Your task to perform on an android device: move an email to a new category in the gmail app Image 0: 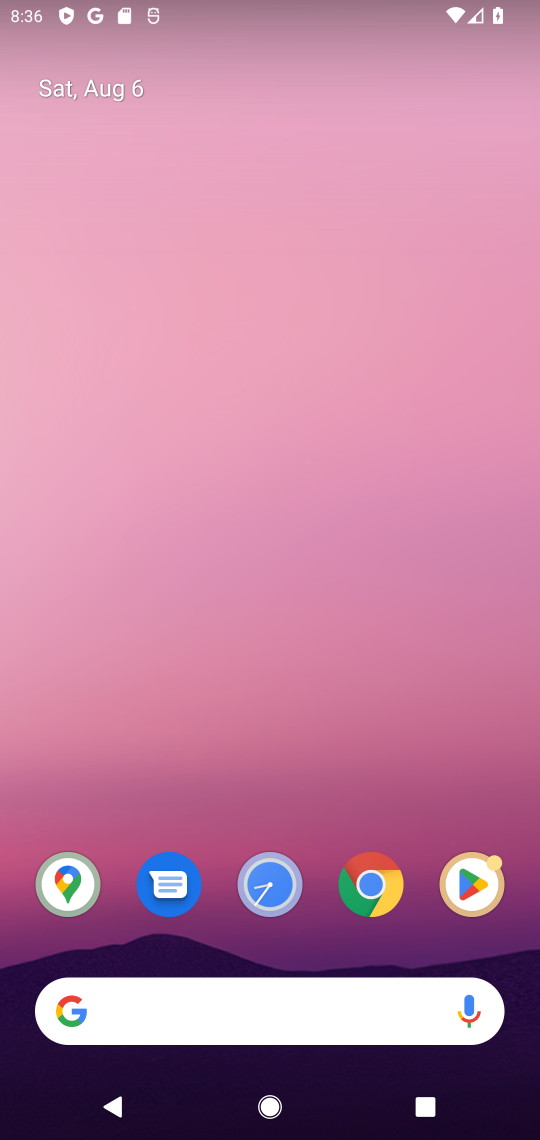
Step 0: drag from (414, 946) to (399, 184)
Your task to perform on an android device: move an email to a new category in the gmail app Image 1: 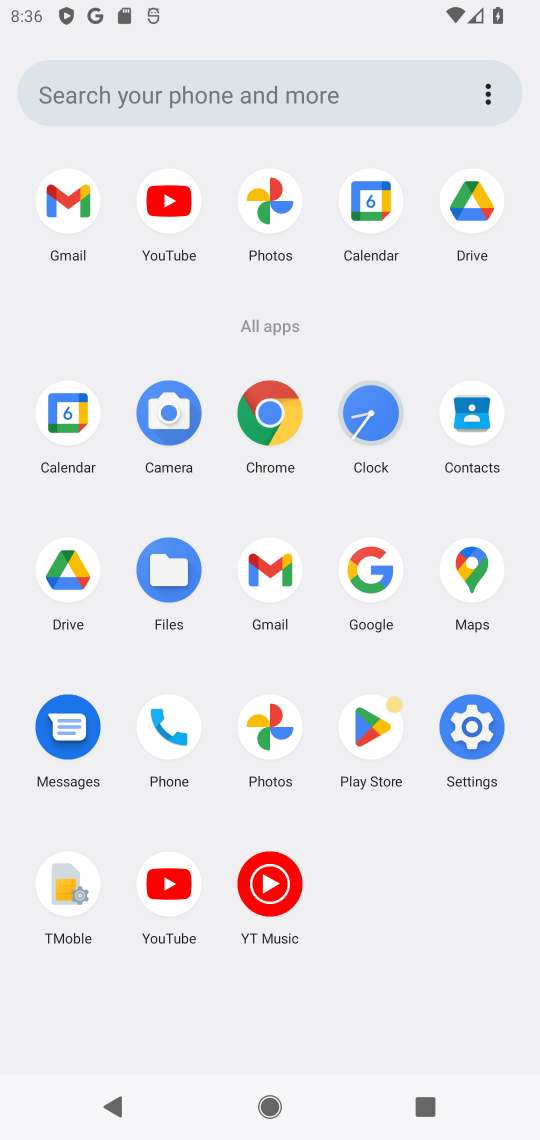
Step 1: click (268, 574)
Your task to perform on an android device: move an email to a new category in the gmail app Image 2: 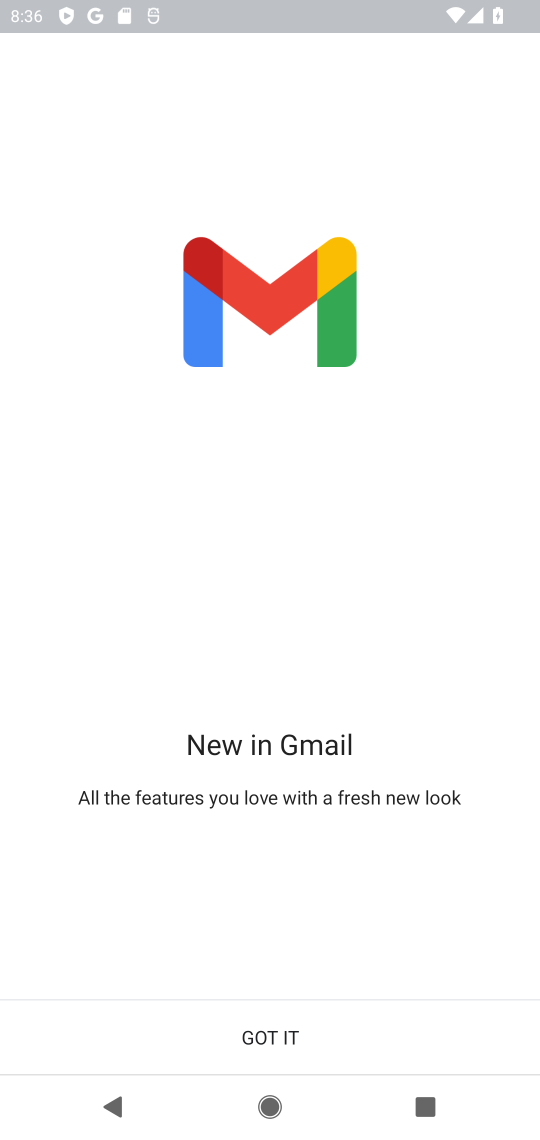
Step 2: click (275, 1044)
Your task to perform on an android device: move an email to a new category in the gmail app Image 3: 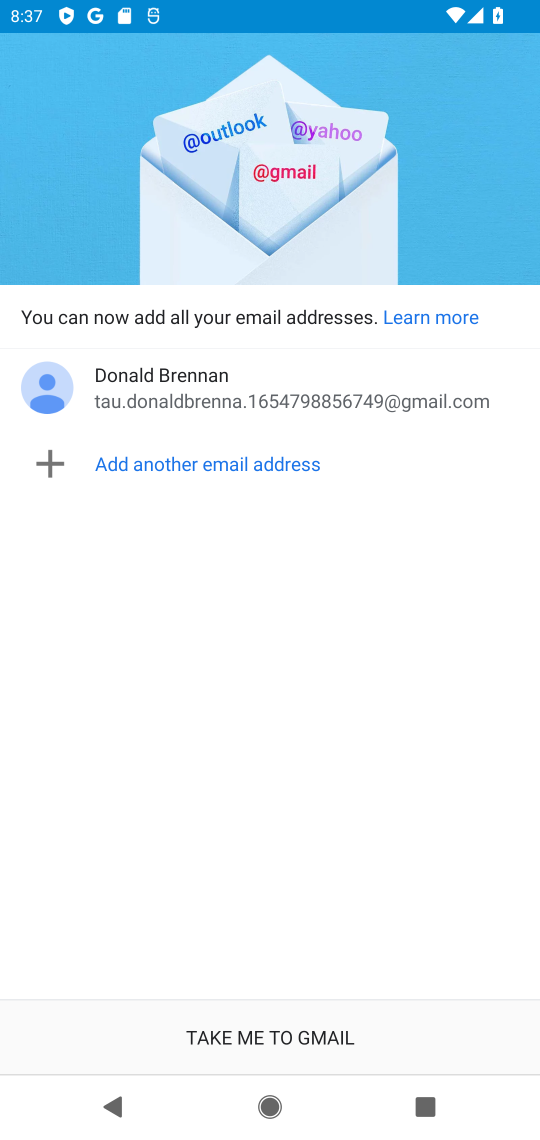
Step 3: click (270, 1035)
Your task to perform on an android device: move an email to a new category in the gmail app Image 4: 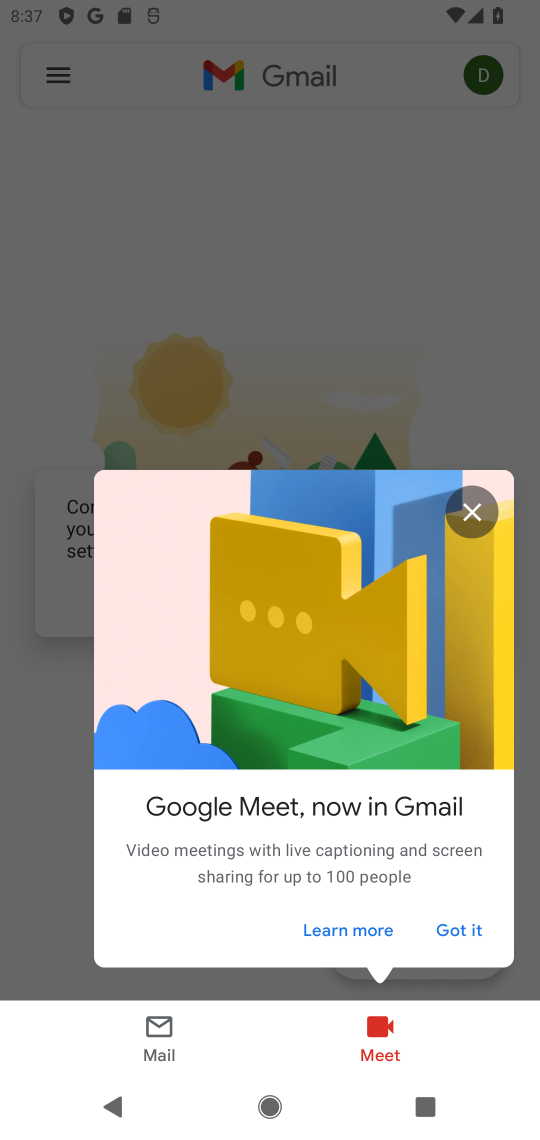
Step 4: click (458, 921)
Your task to perform on an android device: move an email to a new category in the gmail app Image 5: 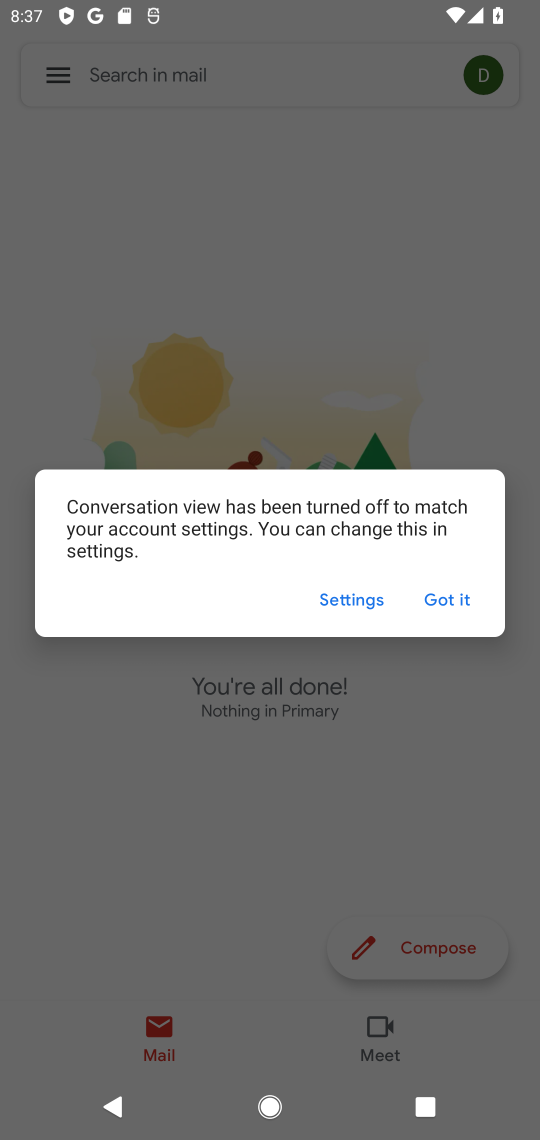
Step 5: click (454, 594)
Your task to perform on an android device: move an email to a new category in the gmail app Image 6: 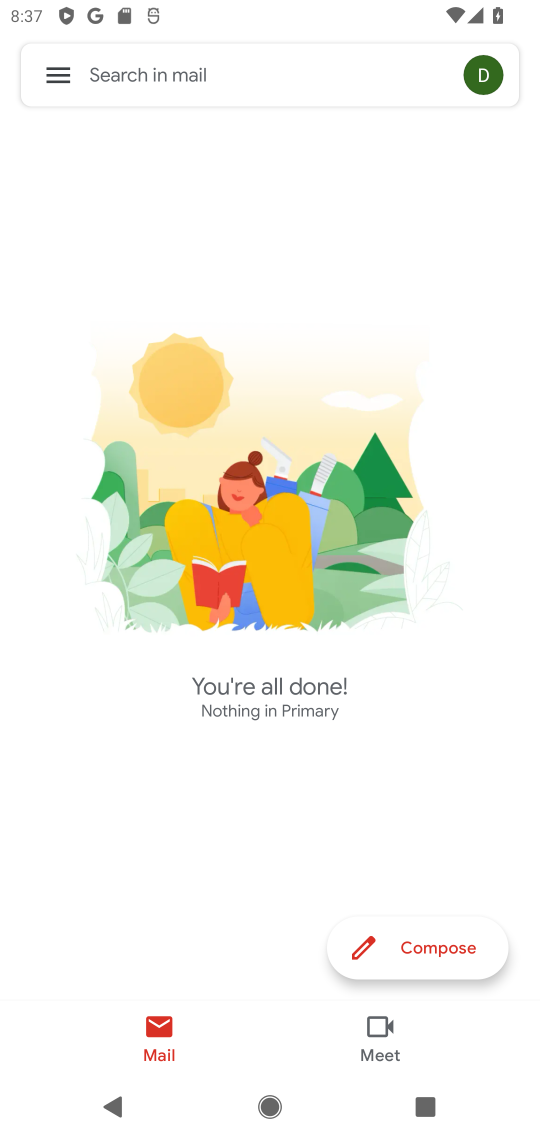
Step 6: click (56, 73)
Your task to perform on an android device: move an email to a new category in the gmail app Image 7: 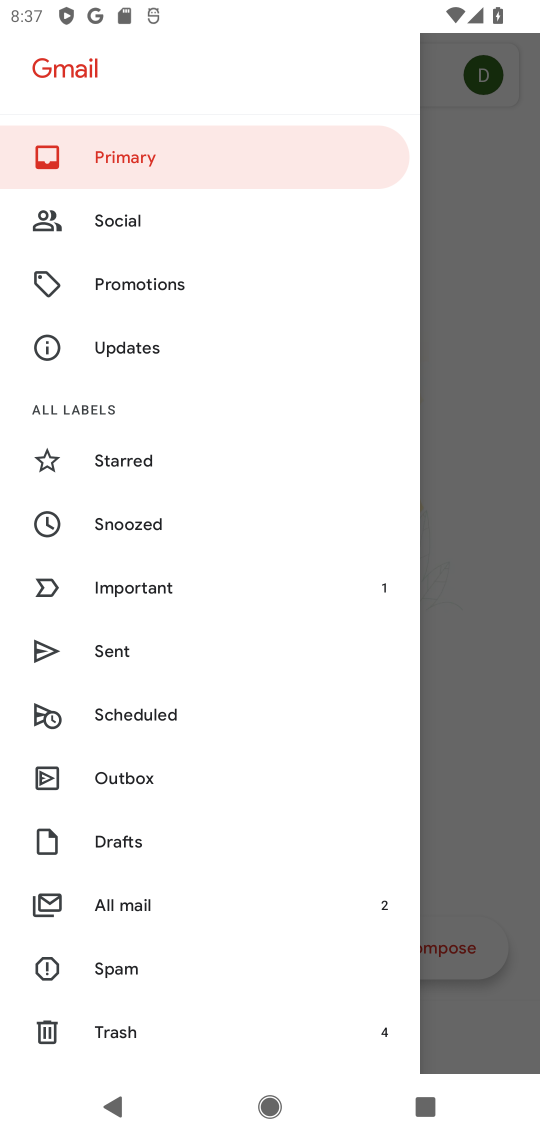
Step 7: click (129, 896)
Your task to perform on an android device: move an email to a new category in the gmail app Image 8: 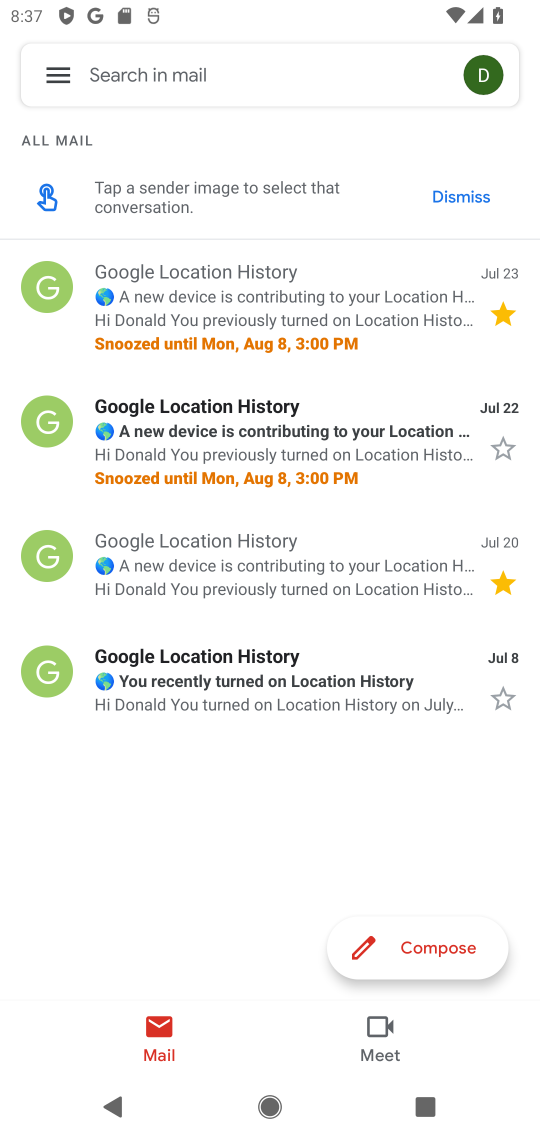
Step 8: click (303, 672)
Your task to perform on an android device: move an email to a new category in the gmail app Image 9: 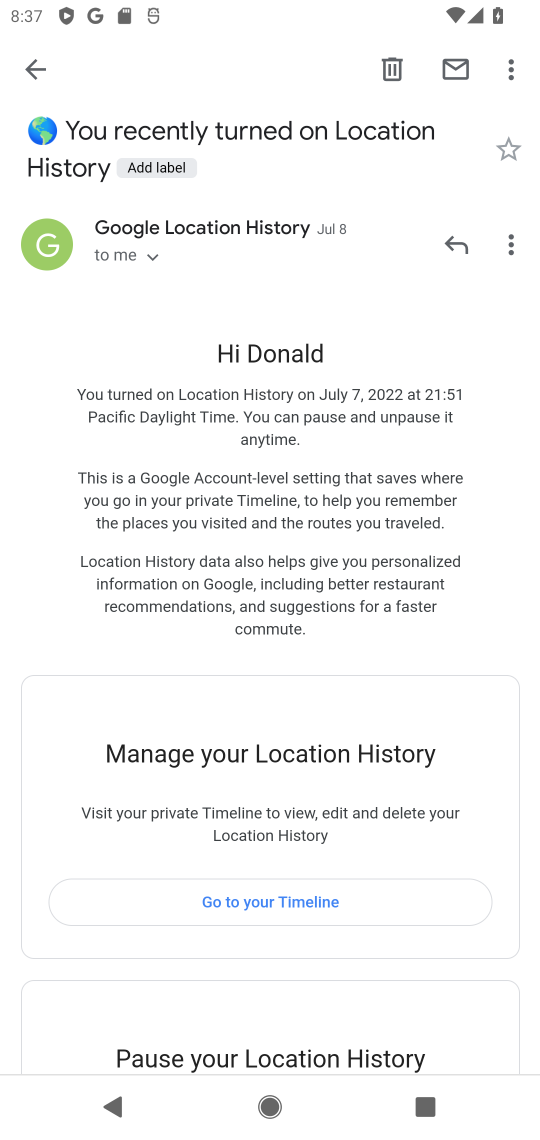
Step 9: click (502, 80)
Your task to perform on an android device: move an email to a new category in the gmail app Image 10: 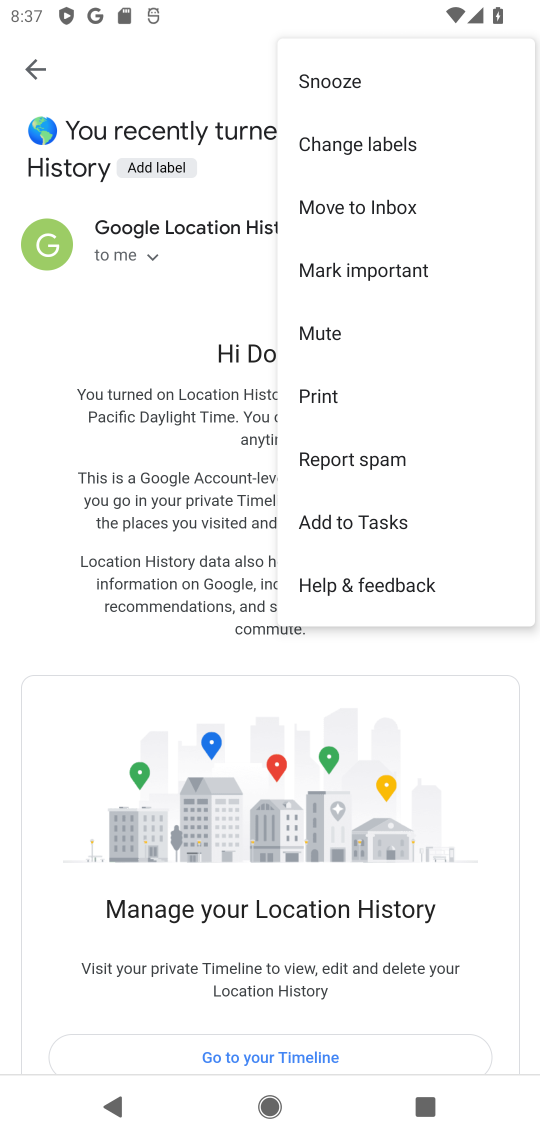
Step 10: click (385, 210)
Your task to perform on an android device: move an email to a new category in the gmail app Image 11: 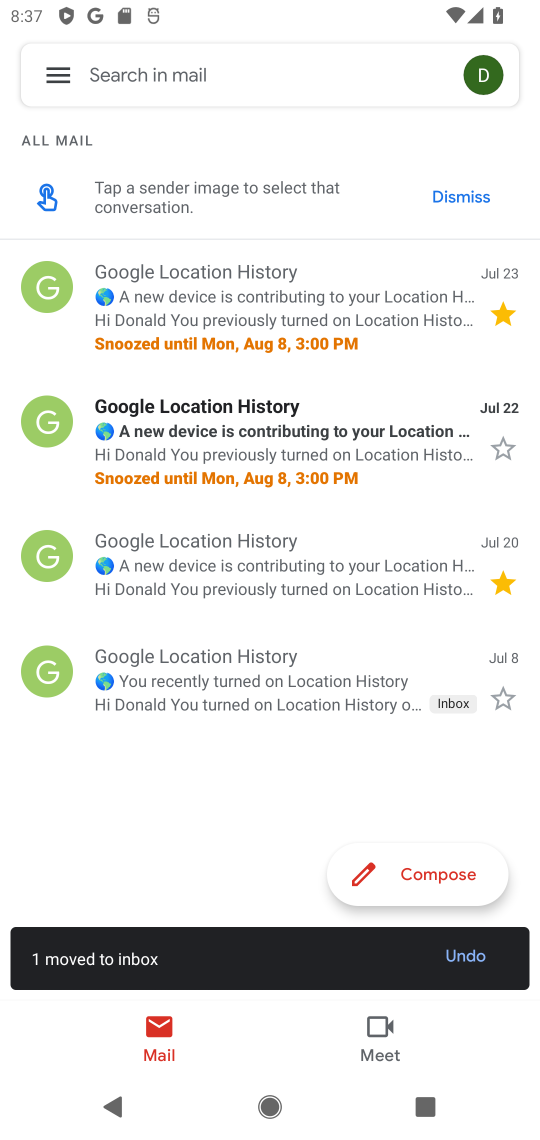
Step 11: task complete